Your task to perform on an android device: Open Chrome and go to settings Image 0: 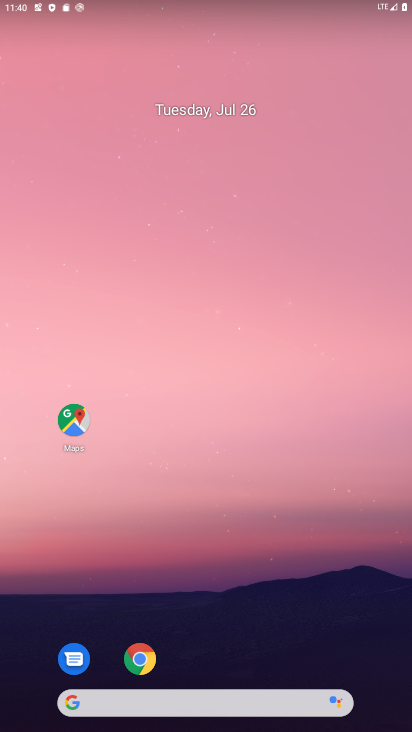
Step 0: drag from (24, 521) to (221, 129)
Your task to perform on an android device: Open Chrome and go to settings Image 1: 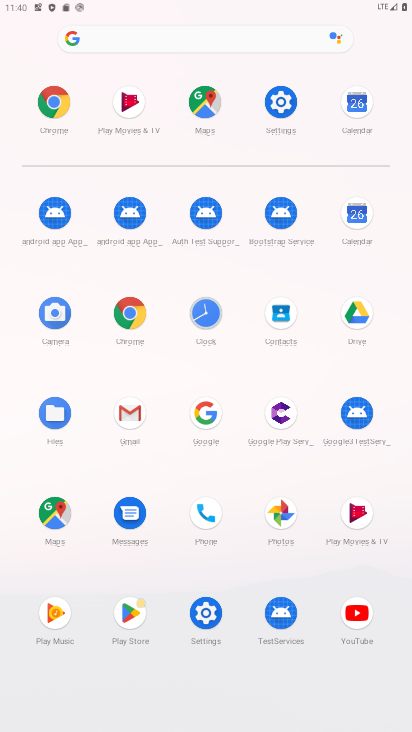
Step 1: click (36, 94)
Your task to perform on an android device: Open Chrome and go to settings Image 2: 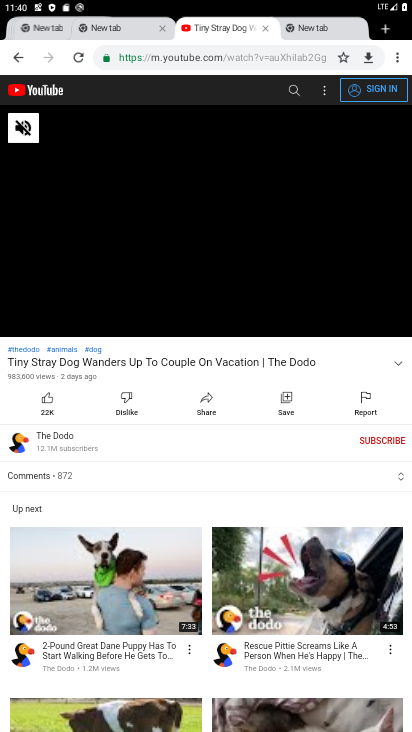
Step 2: click (363, 30)
Your task to perform on an android device: Open Chrome and go to settings Image 3: 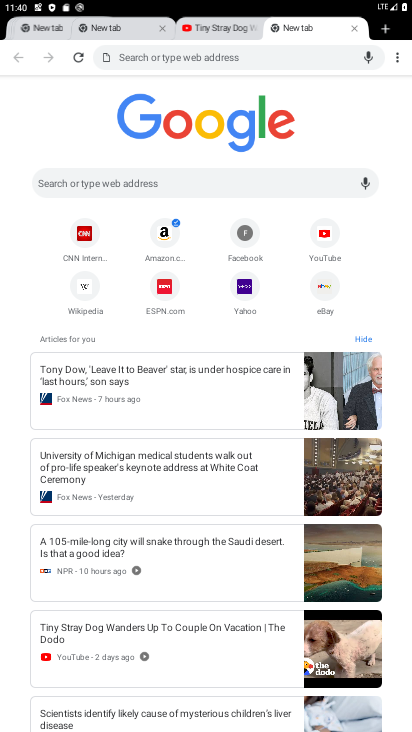
Step 3: click (354, 28)
Your task to perform on an android device: Open Chrome and go to settings Image 4: 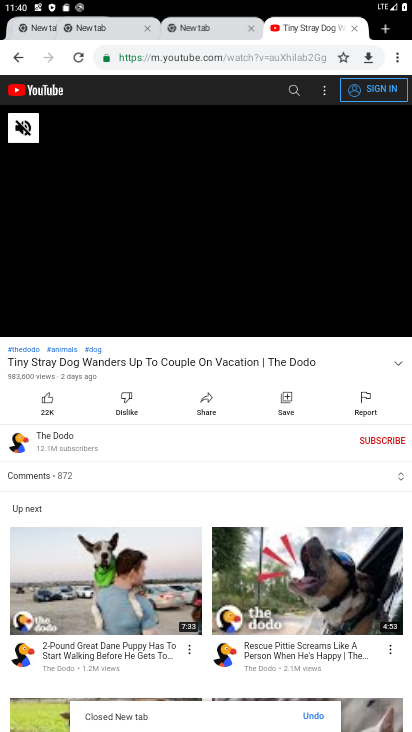
Step 4: click (354, 28)
Your task to perform on an android device: Open Chrome and go to settings Image 5: 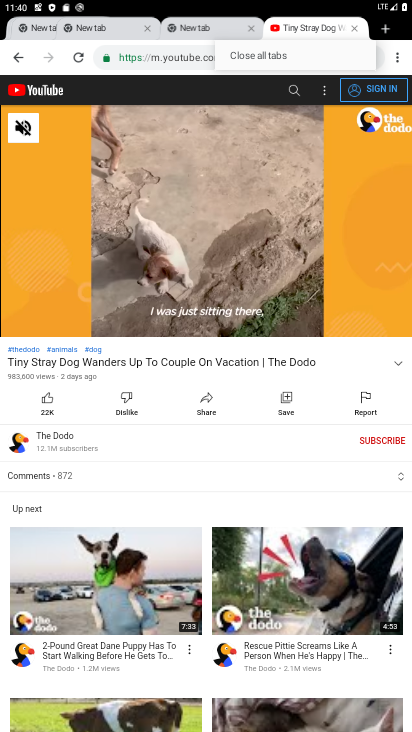
Step 5: click (354, 26)
Your task to perform on an android device: Open Chrome and go to settings Image 6: 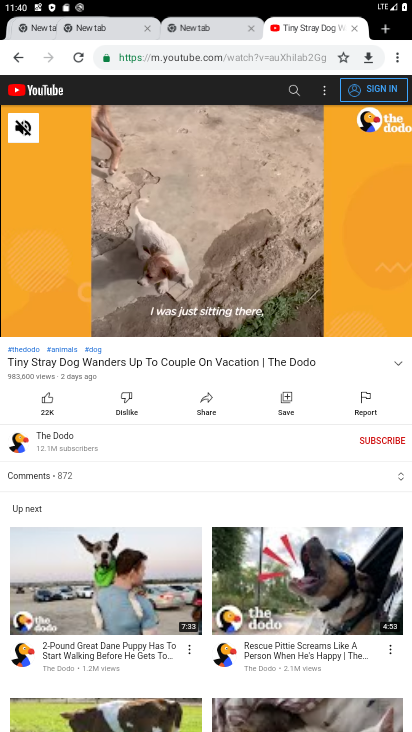
Step 6: click (359, 26)
Your task to perform on an android device: Open Chrome and go to settings Image 7: 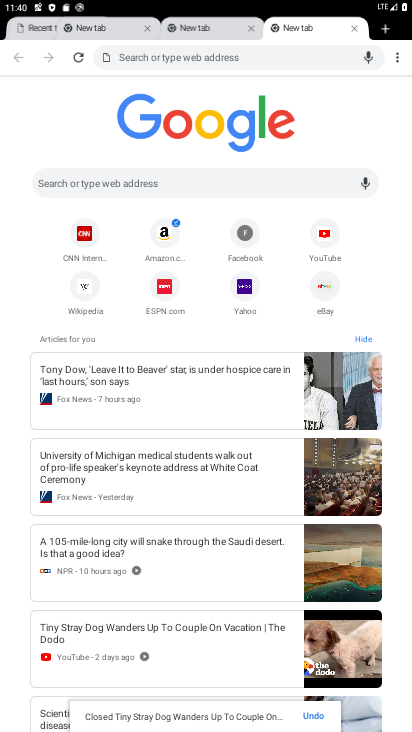
Step 7: click (357, 27)
Your task to perform on an android device: Open Chrome and go to settings Image 8: 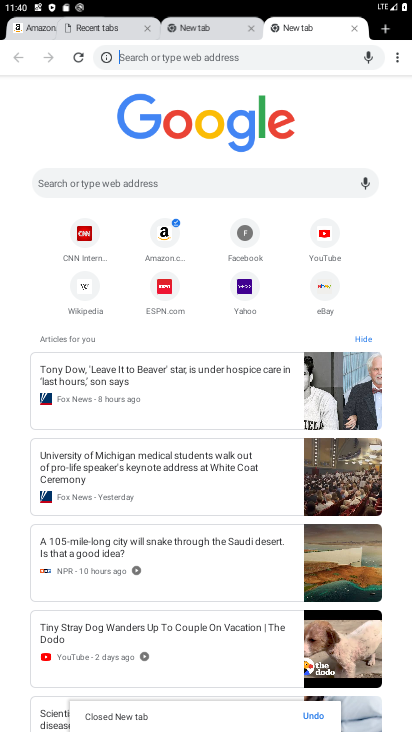
Step 8: click (356, 25)
Your task to perform on an android device: Open Chrome and go to settings Image 9: 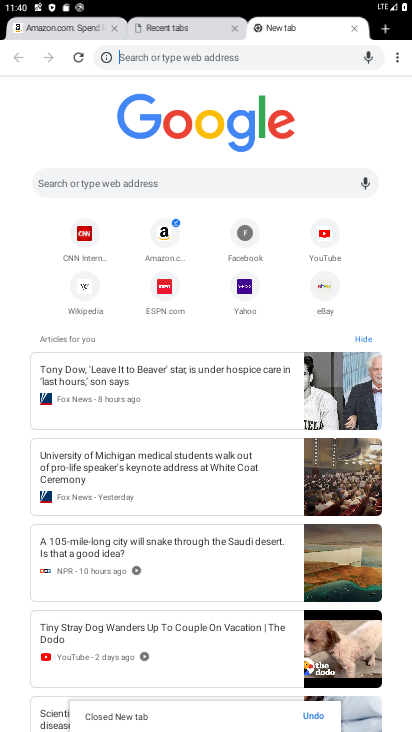
Step 9: click (350, 26)
Your task to perform on an android device: Open Chrome and go to settings Image 10: 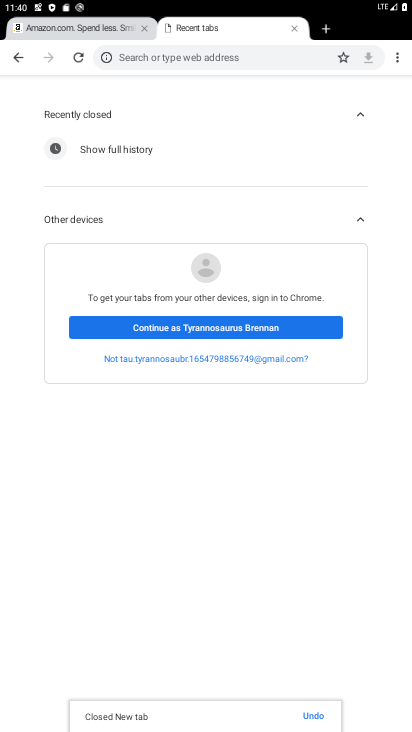
Step 10: click (293, 22)
Your task to perform on an android device: Open Chrome and go to settings Image 11: 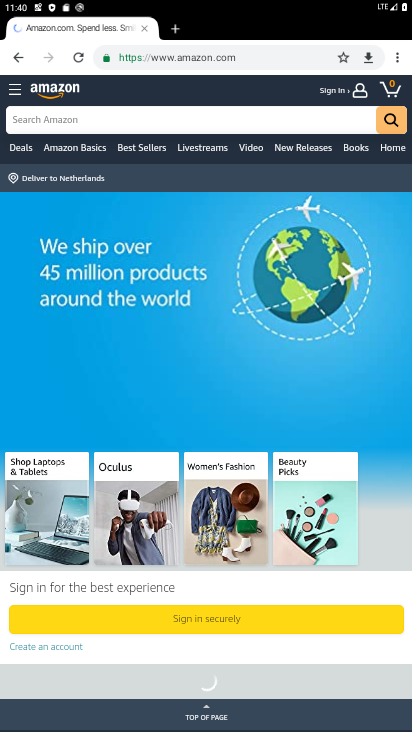
Step 11: click (399, 56)
Your task to perform on an android device: Open Chrome and go to settings Image 12: 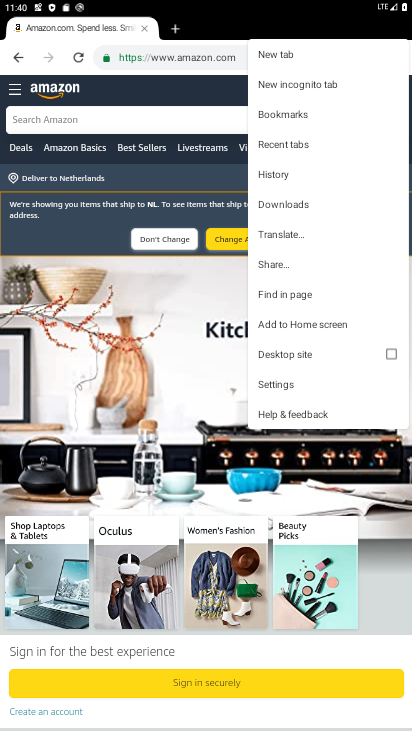
Step 12: click (268, 386)
Your task to perform on an android device: Open Chrome and go to settings Image 13: 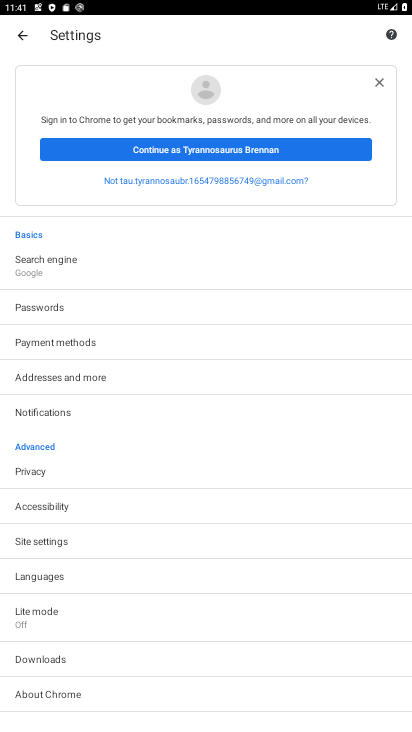
Step 13: drag from (12, 416) to (160, 95)
Your task to perform on an android device: Open Chrome and go to settings Image 14: 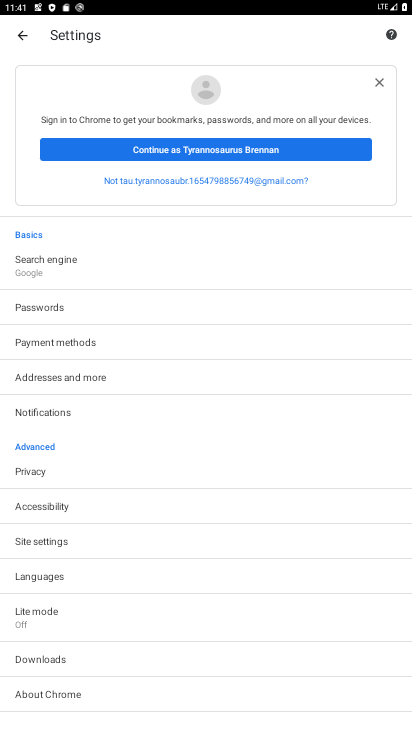
Step 14: drag from (18, 469) to (178, 195)
Your task to perform on an android device: Open Chrome and go to settings Image 15: 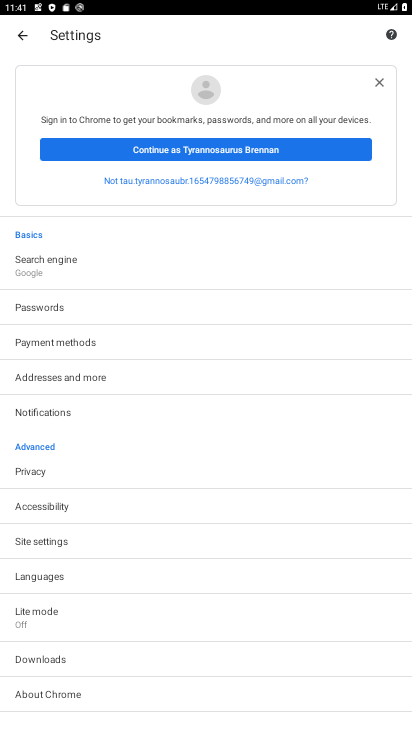
Step 15: drag from (17, 708) to (282, 200)
Your task to perform on an android device: Open Chrome and go to settings Image 16: 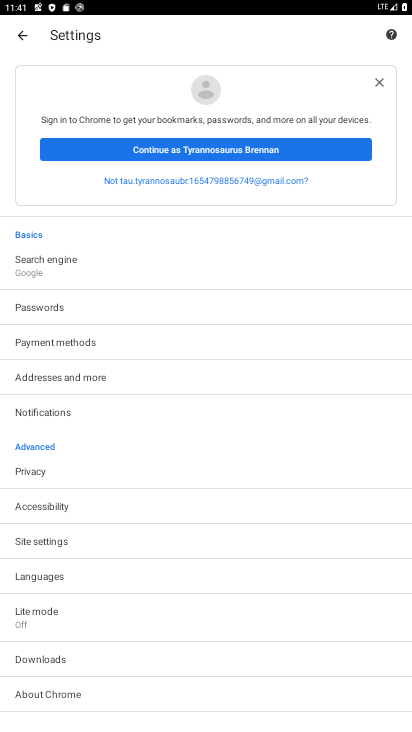
Step 16: drag from (21, 544) to (220, 179)
Your task to perform on an android device: Open Chrome and go to settings Image 17: 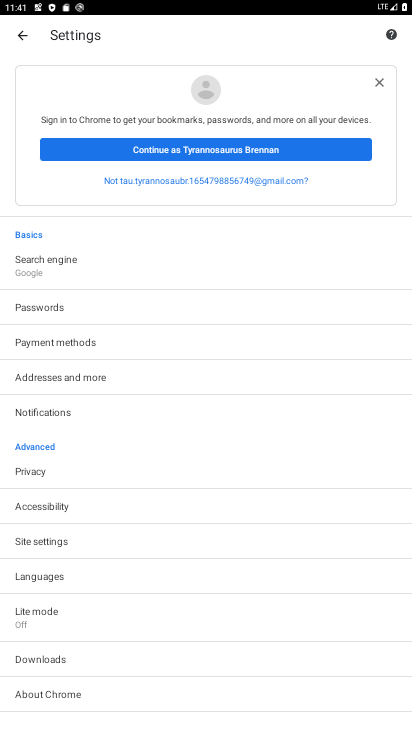
Step 17: click (383, 81)
Your task to perform on an android device: Open Chrome and go to settings Image 18: 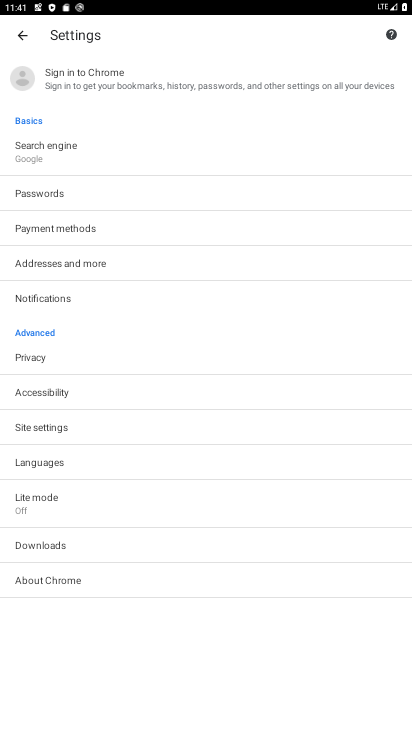
Step 18: task complete